Your task to perform on an android device: What is the recent news? Image 0: 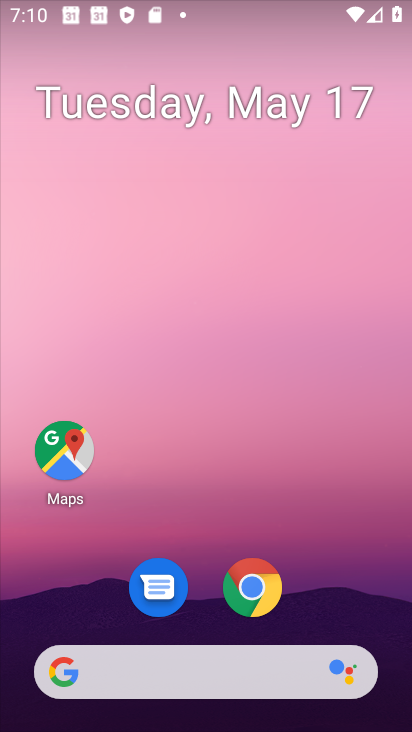
Step 0: drag from (272, 672) to (219, 431)
Your task to perform on an android device: What is the recent news? Image 1: 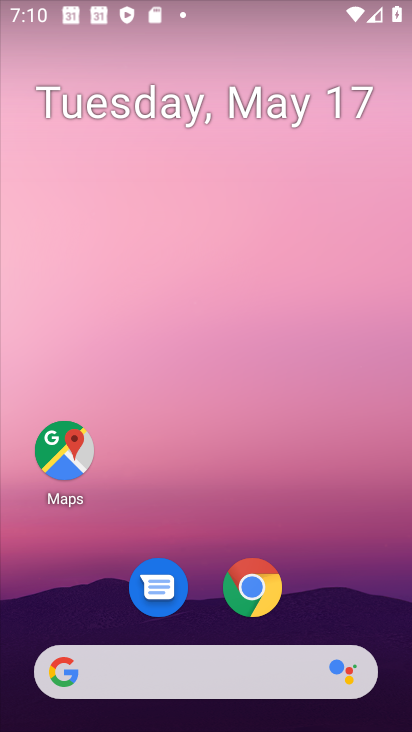
Step 1: drag from (215, 712) to (179, 243)
Your task to perform on an android device: What is the recent news? Image 2: 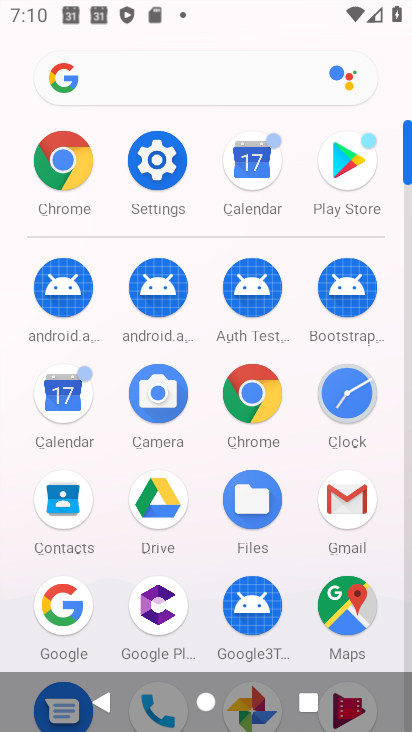
Step 2: click (137, 87)
Your task to perform on an android device: What is the recent news? Image 3: 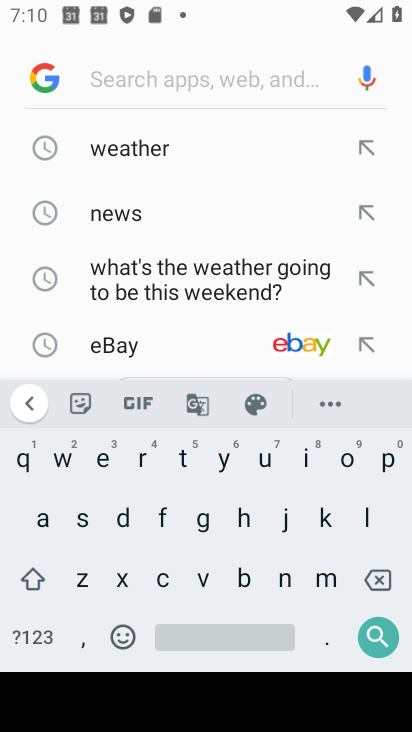
Step 3: click (144, 218)
Your task to perform on an android device: What is the recent news? Image 4: 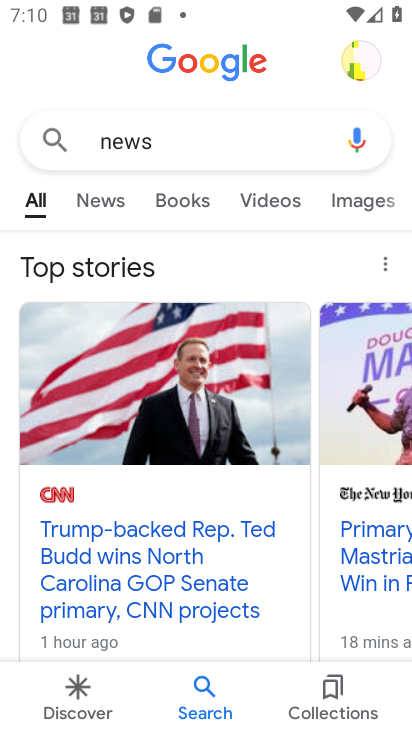
Step 4: task complete